Your task to perform on an android device: toggle location history Image 0: 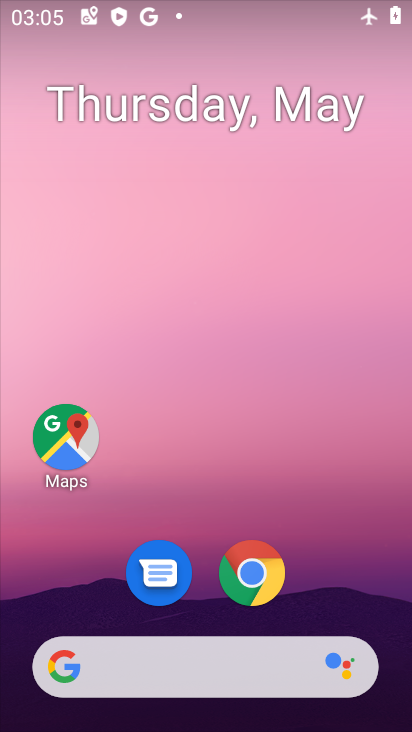
Step 0: drag from (334, 591) to (319, 218)
Your task to perform on an android device: toggle location history Image 1: 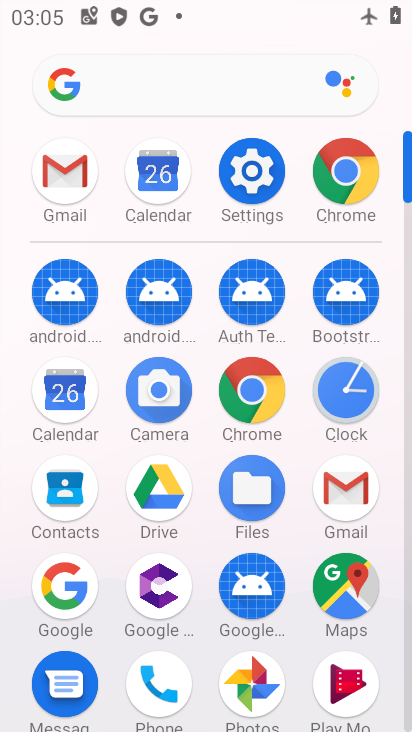
Step 1: click (235, 170)
Your task to perform on an android device: toggle location history Image 2: 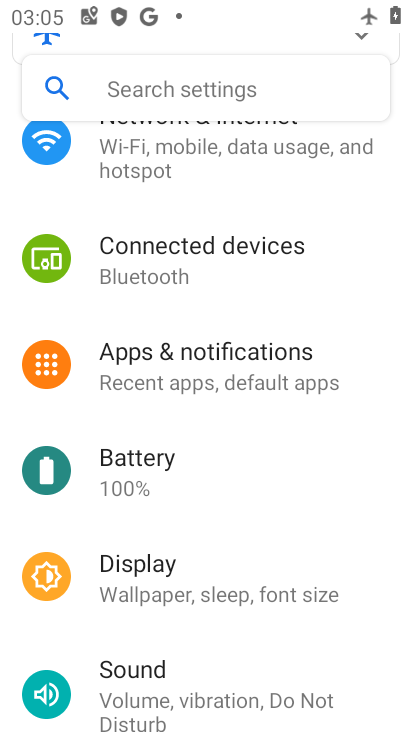
Step 2: drag from (189, 572) to (218, 210)
Your task to perform on an android device: toggle location history Image 3: 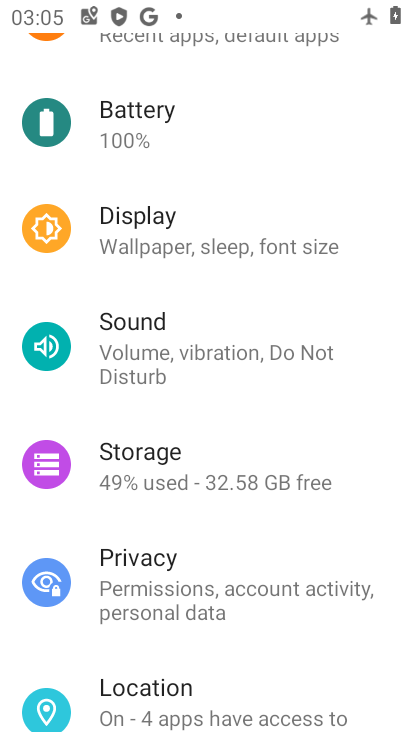
Step 3: click (187, 695)
Your task to perform on an android device: toggle location history Image 4: 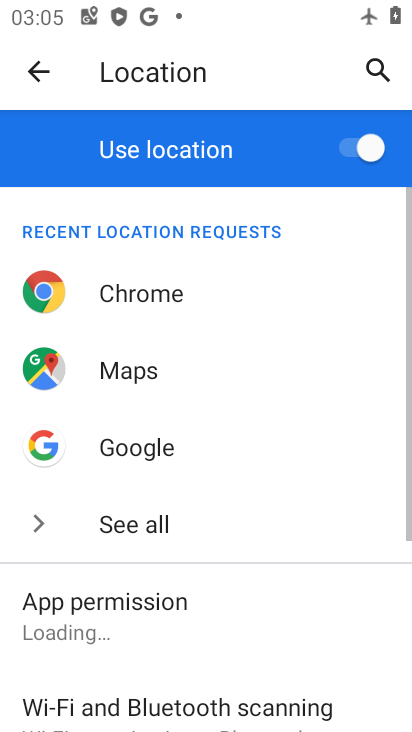
Step 4: drag from (219, 653) to (269, 313)
Your task to perform on an android device: toggle location history Image 5: 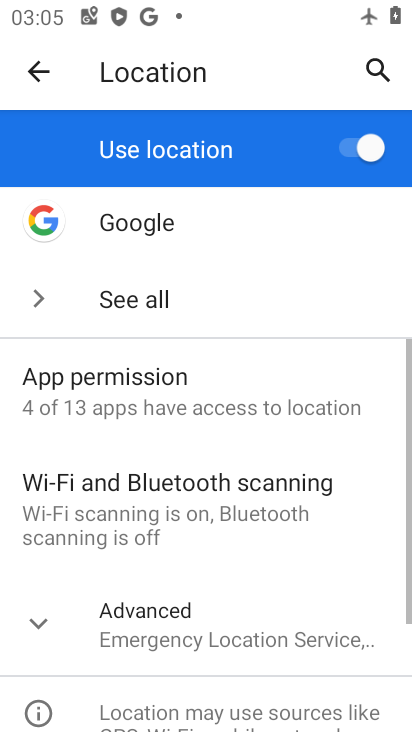
Step 5: click (191, 635)
Your task to perform on an android device: toggle location history Image 6: 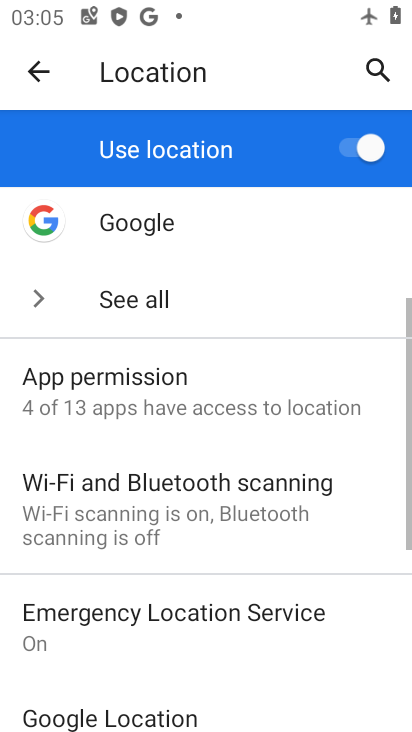
Step 6: drag from (250, 608) to (280, 271)
Your task to perform on an android device: toggle location history Image 7: 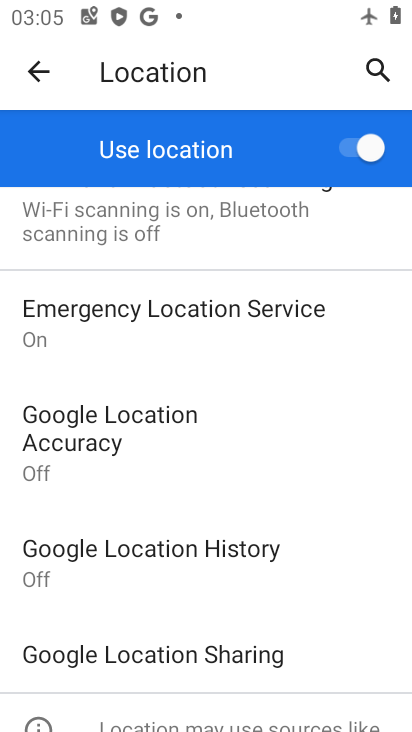
Step 7: click (205, 574)
Your task to perform on an android device: toggle location history Image 8: 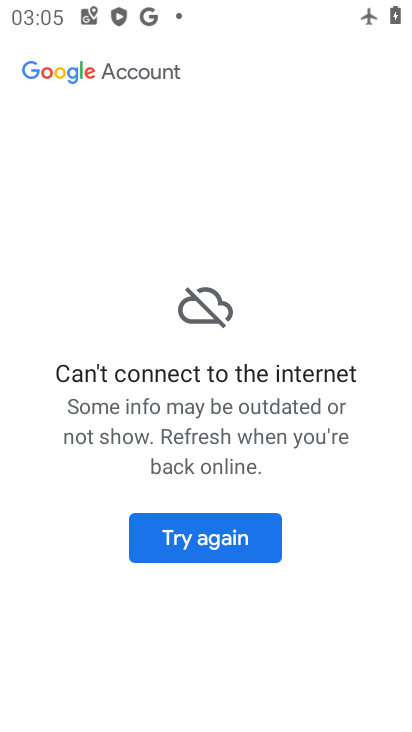
Step 8: task complete